Your task to perform on an android device: turn on data saver in the chrome app Image 0: 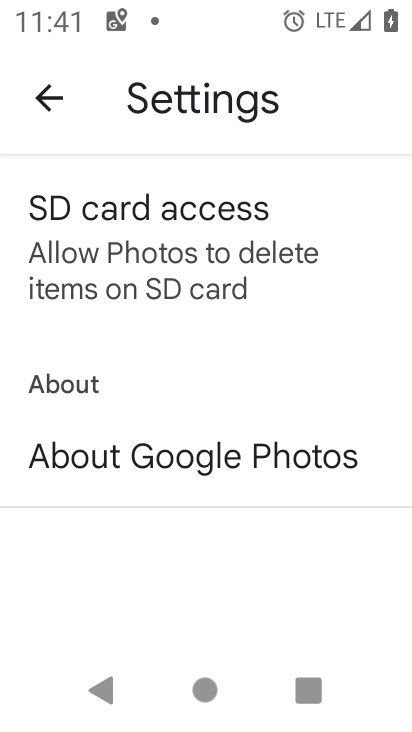
Step 0: drag from (283, 574) to (292, 431)
Your task to perform on an android device: turn on data saver in the chrome app Image 1: 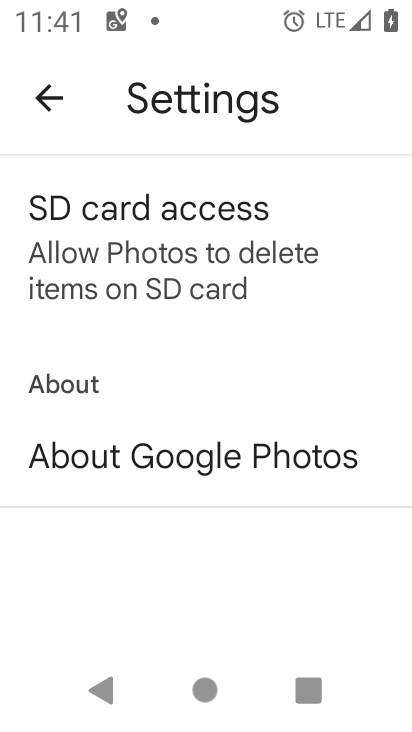
Step 1: press back button
Your task to perform on an android device: turn on data saver in the chrome app Image 2: 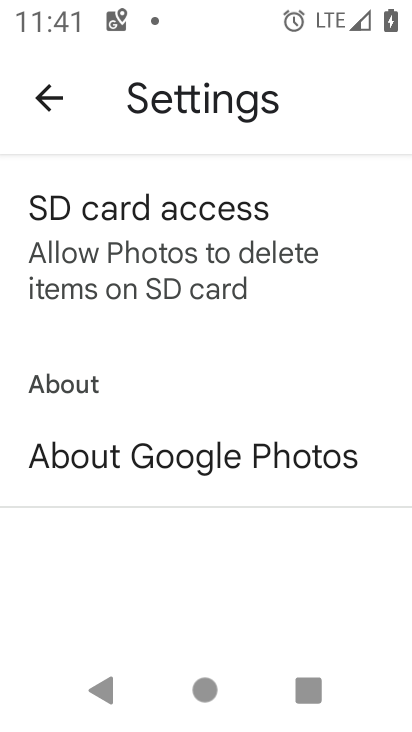
Step 2: click (56, 101)
Your task to perform on an android device: turn on data saver in the chrome app Image 3: 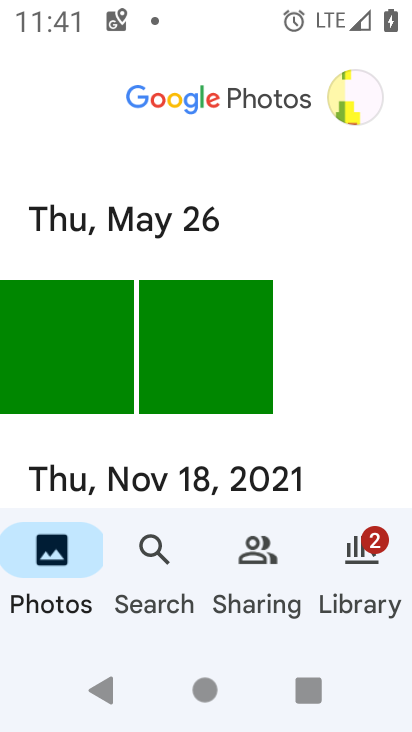
Step 3: press home button
Your task to perform on an android device: turn on data saver in the chrome app Image 4: 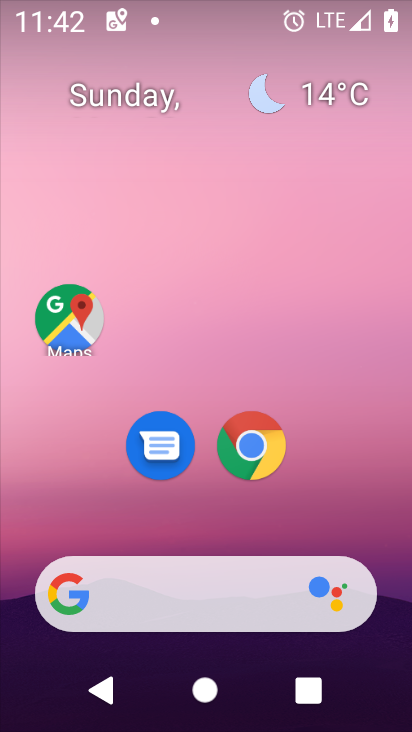
Step 4: drag from (183, 390) to (190, 12)
Your task to perform on an android device: turn on data saver in the chrome app Image 5: 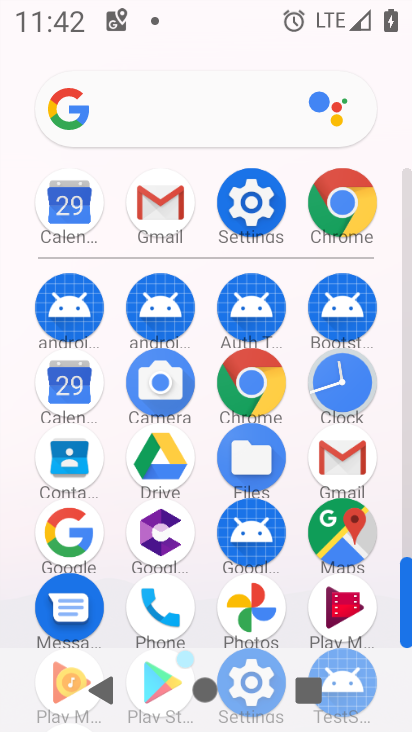
Step 5: click (350, 201)
Your task to perform on an android device: turn on data saver in the chrome app Image 6: 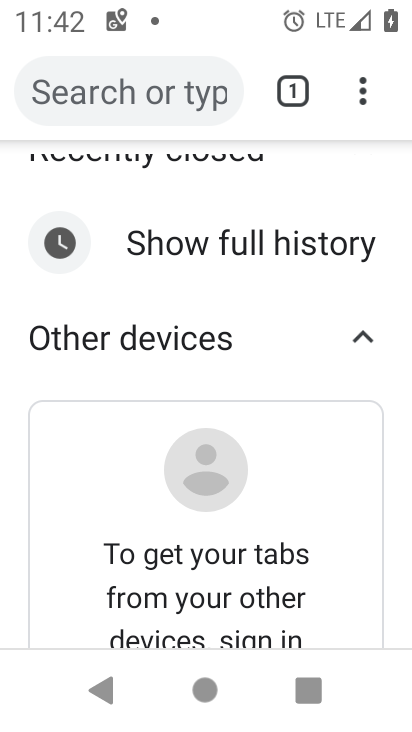
Step 6: drag from (196, 388) to (234, 224)
Your task to perform on an android device: turn on data saver in the chrome app Image 7: 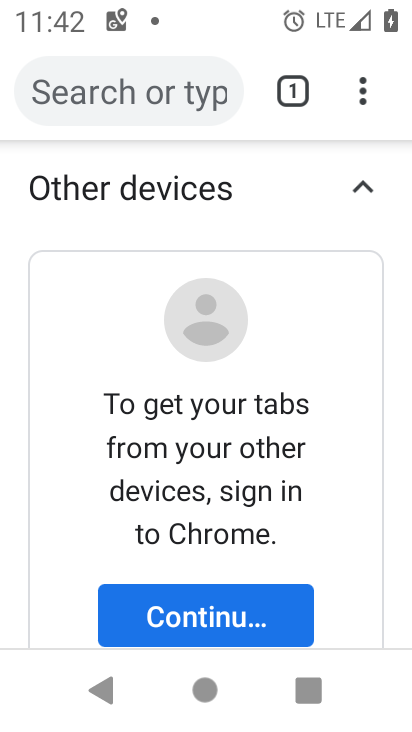
Step 7: drag from (239, 446) to (281, 246)
Your task to perform on an android device: turn on data saver in the chrome app Image 8: 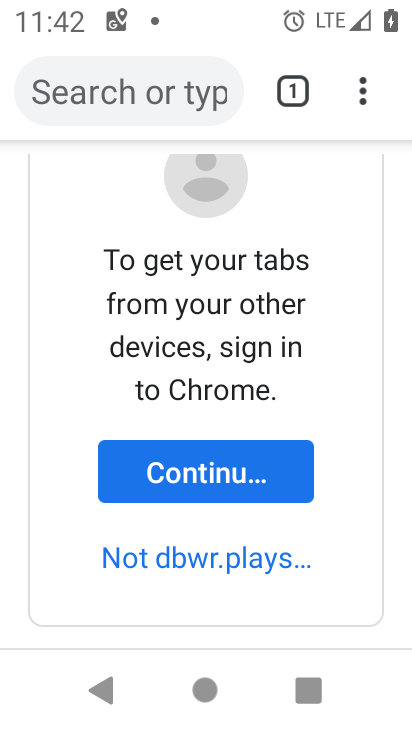
Step 8: drag from (370, 98) to (155, 469)
Your task to perform on an android device: turn on data saver in the chrome app Image 9: 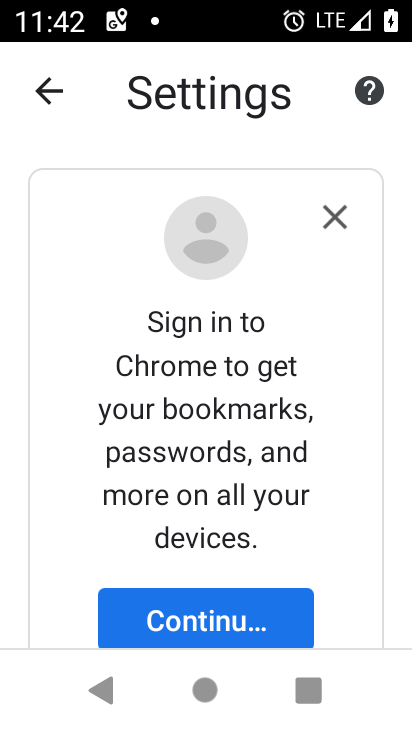
Step 9: drag from (266, 579) to (307, 469)
Your task to perform on an android device: turn on data saver in the chrome app Image 10: 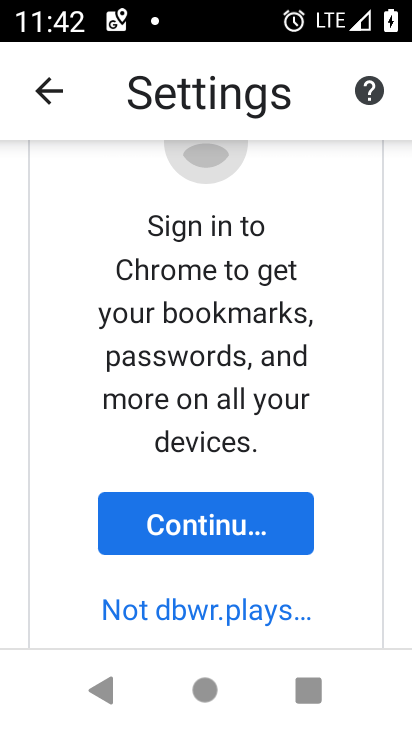
Step 10: drag from (207, 540) to (269, 152)
Your task to perform on an android device: turn on data saver in the chrome app Image 11: 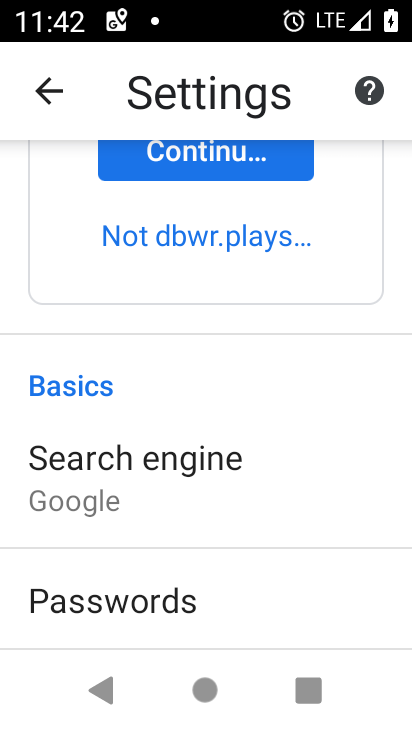
Step 11: drag from (133, 606) to (244, 169)
Your task to perform on an android device: turn on data saver in the chrome app Image 12: 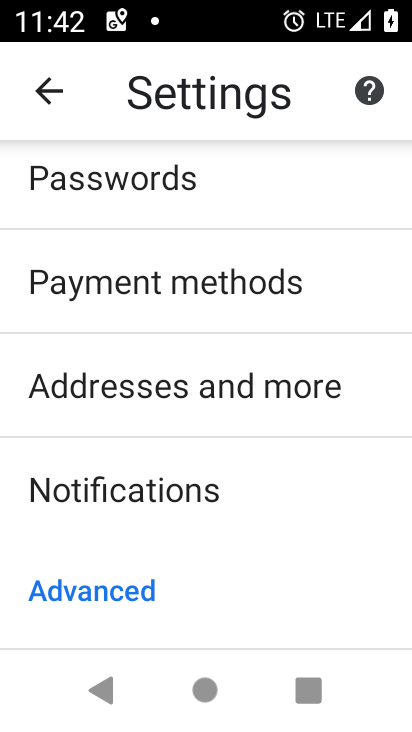
Step 12: drag from (237, 526) to (265, 311)
Your task to perform on an android device: turn on data saver in the chrome app Image 13: 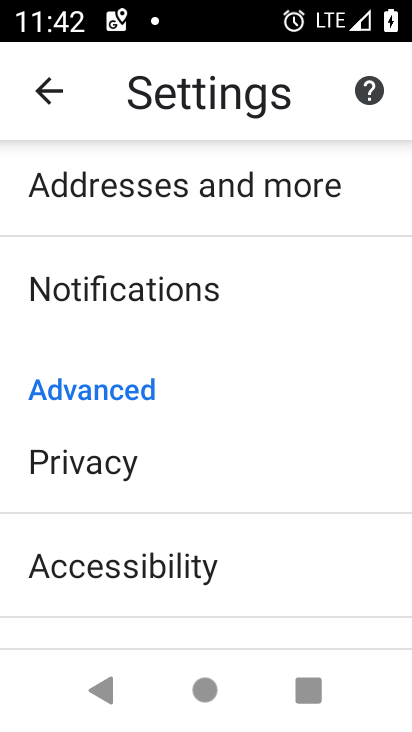
Step 13: drag from (224, 593) to (264, 293)
Your task to perform on an android device: turn on data saver in the chrome app Image 14: 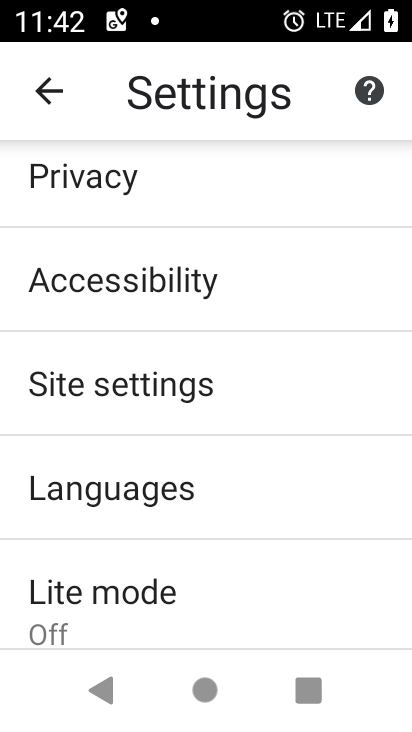
Step 14: click (160, 598)
Your task to perform on an android device: turn on data saver in the chrome app Image 15: 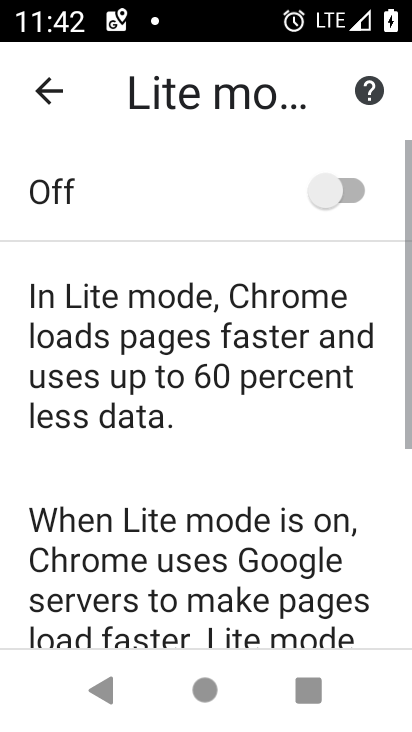
Step 15: click (330, 194)
Your task to perform on an android device: turn on data saver in the chrome app Image 16: 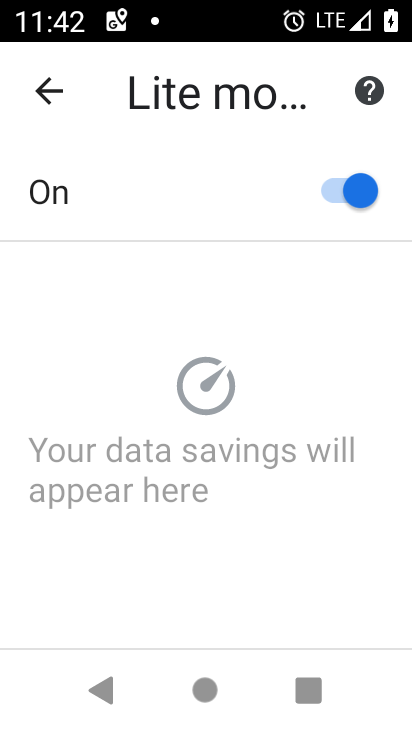
Step 16: task complete